Your task to perform on an android device: toggle priority inbox in the gmail app Image 0: 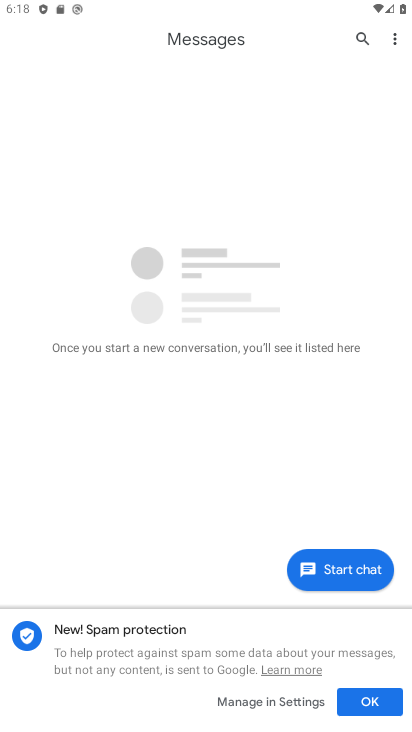
Step 0: press home button
Your task to perform on an android device: toggle priority inbox in the gmail app Image 1: 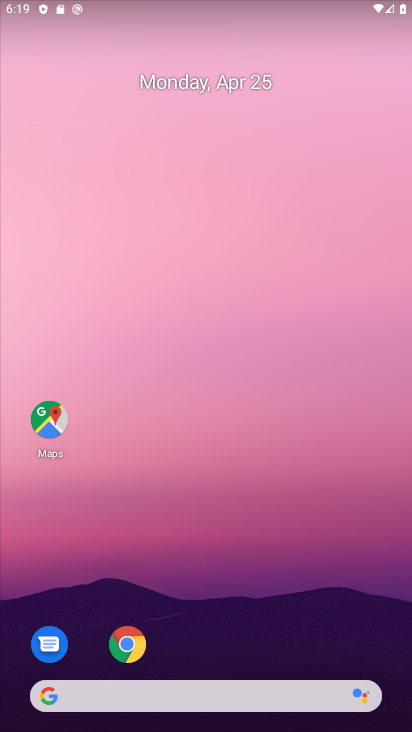
Step 1: drag from (279, 638) to (266, 103)
Your task to perform on an android device: toggle priority inbox in the gmail app Image 2: 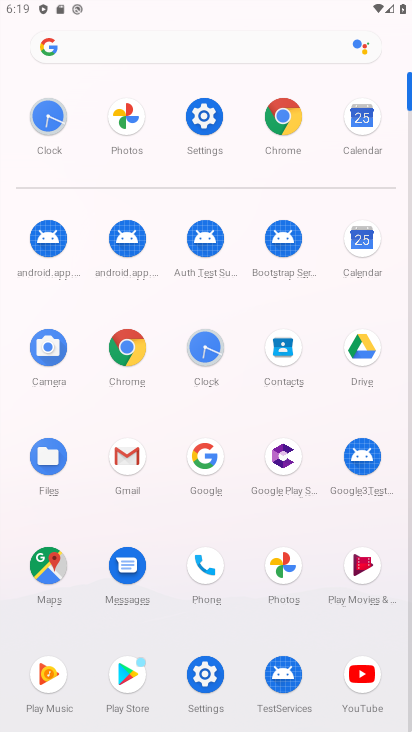
Step 2: click (122, 457)
Your task to perform on an android device: toggle priority inbox in the gmail app Image 3: 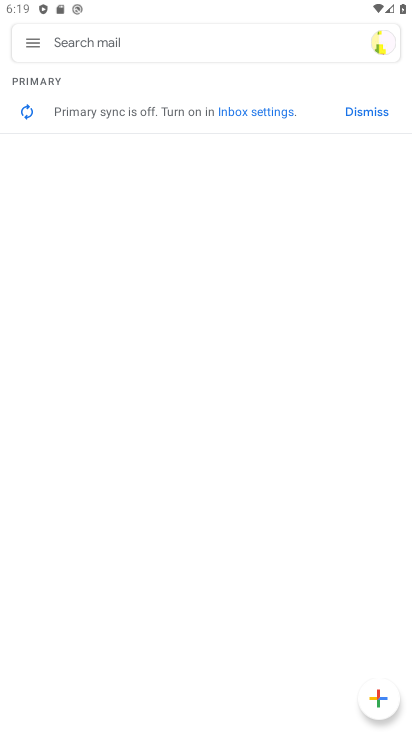
Step 3: click (26, 45)
Your task to perform on an android device: toggle priority inbox in the gmail app Image 4: 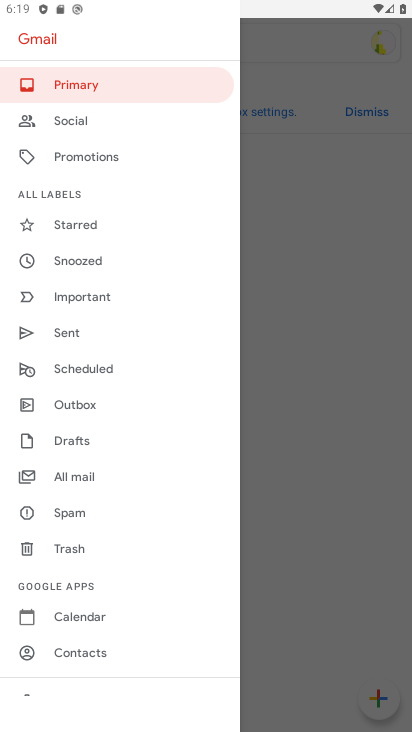
Step 4: drag from (144, 582) to (125, 261)
Your task to perform on an android device: toggle priority inbox in the gmail app Image 5: 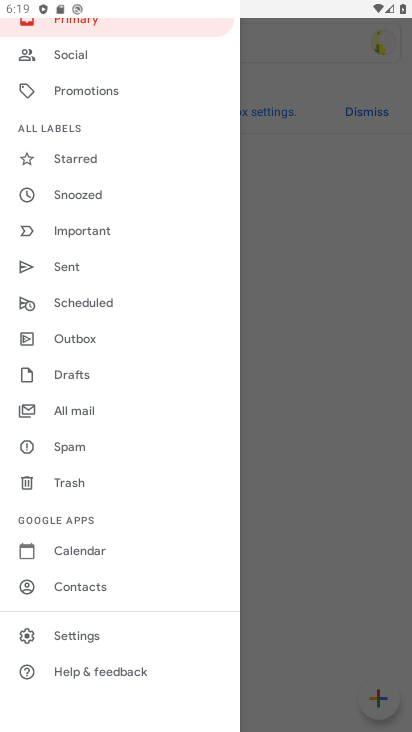
Step 5: click (87, 631)
Your task to perform on an android device: toggle priority inbox in the gmail app Image 6: 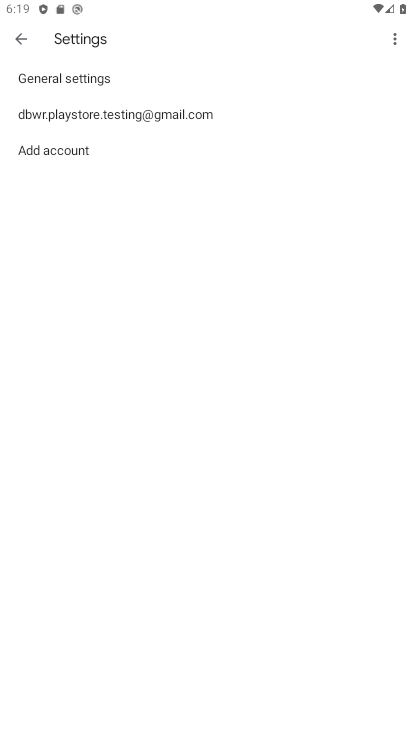
Step 6: click (136, 115)
Your task to perform on an android device: toggle priority inbox in the gmail app Image 7: 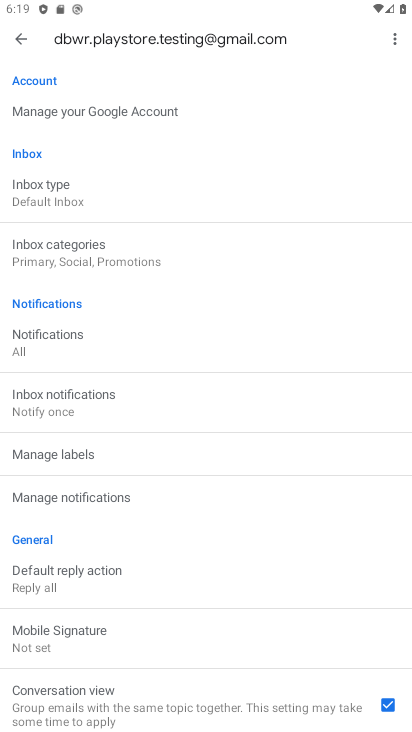
Step 7: click (62, 190)
Your task to perform on an android device: toggle priority inbox in the gmail app Image 8: 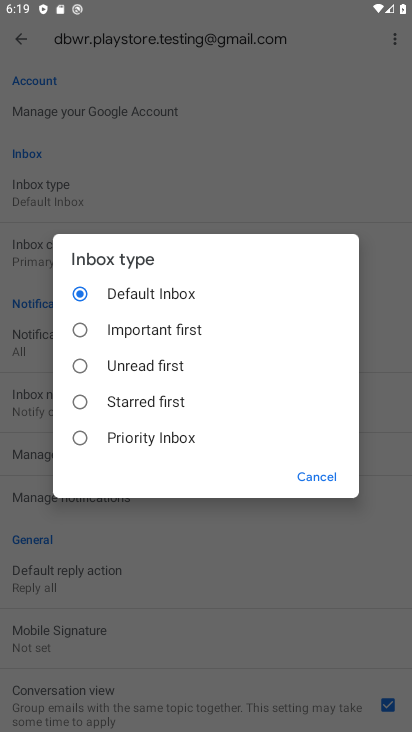
Step 8: click (79, 442)
Your task to perform on an android device: toggle priority inbox in the gmail app Image 9: 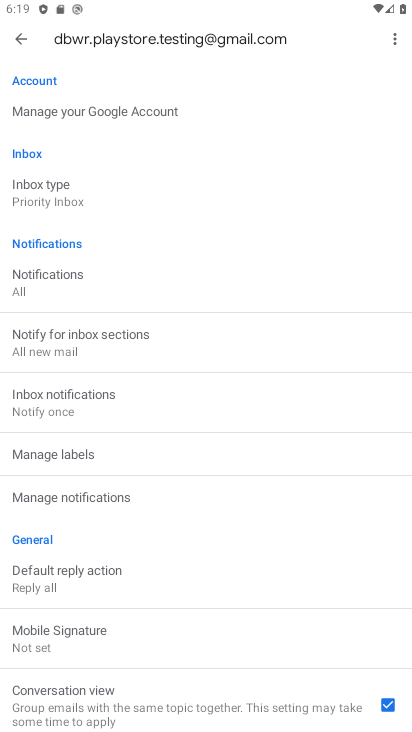
Step 9: task complete